Your task to perform on an android device: View the shopping cart on amazon. Search for razer thresher on amazon, select the first entry, add it to the cart, then select checkout. Image 0: 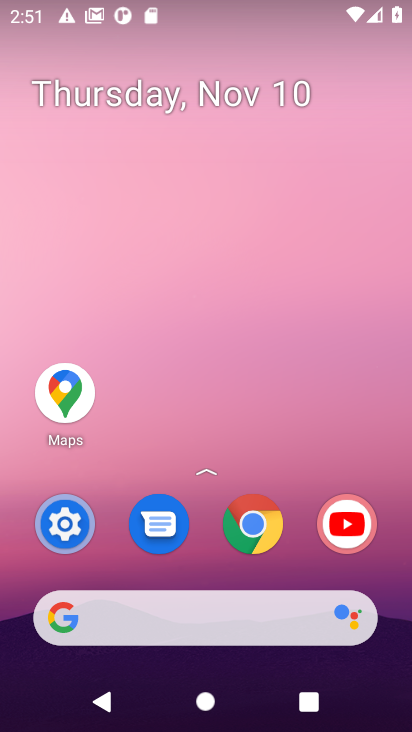
Step 0: click (250, 533)
Your task to perform on an android device: View the shopping cart on amazon. Search for razer thresher on amazon, select the first entry, add it to the cart, then select checkout. Image 1: 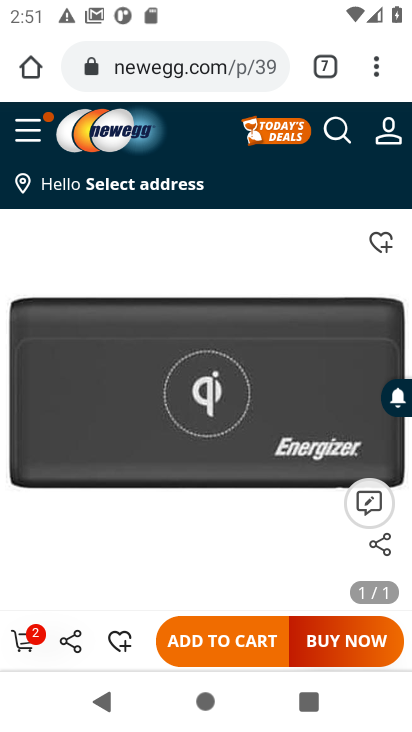
Step 1: click (329, 62)
Your task to perform on an android device: View the shopping cart on amazon. Search for razer thresher on amazon, select the first entry, add it to the cart, then select checkout. Image 2: 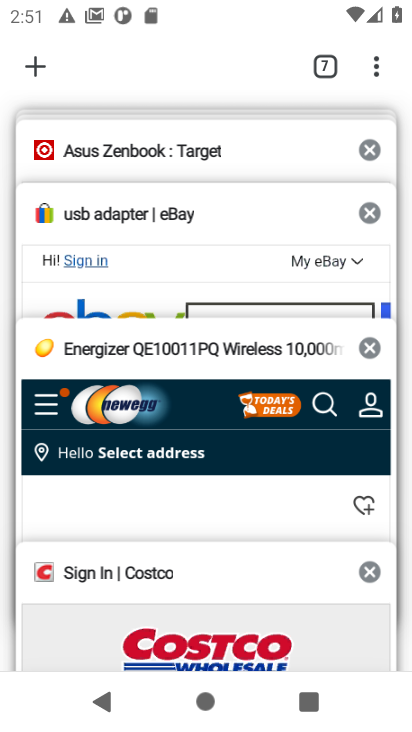
Step 2: drag from (241, 158) to (203, 379)
Your task to perform on an android device: View the shopping cart on amazon. Search for razer thresher on amazon, select the first entry, add it to the cart, then select checkout. Image 3: 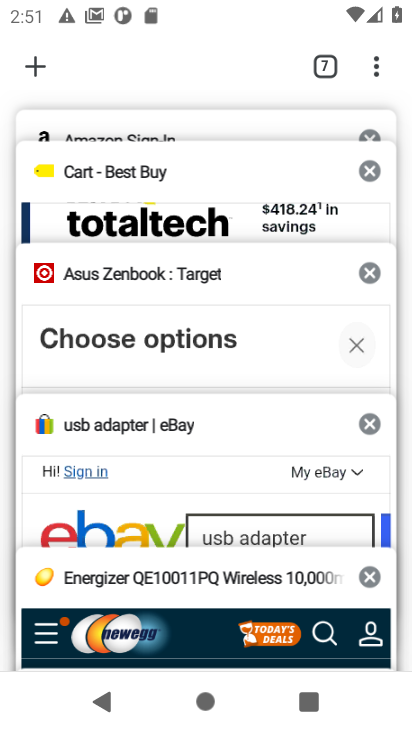
Step 3: click (268, 127)
Your task to perform on an android device: View the shopping cart on amazon. Search for razer thresher on amazon, select the first entry, add it to the cart, then select checkout. Image 4: 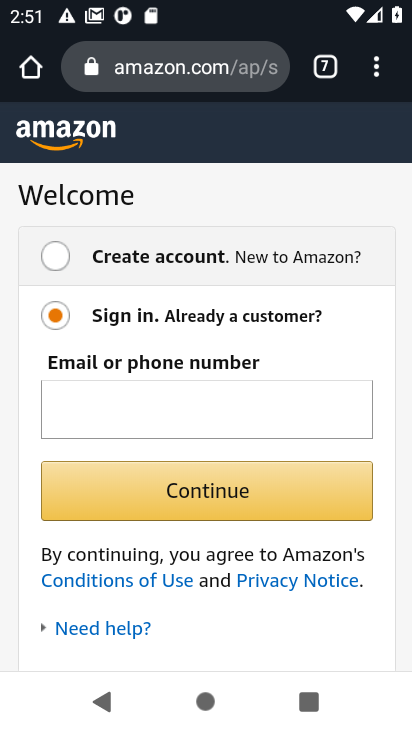
Step 4: press back button
Your task to perform on an android device: View the shopping cart on amazon. Search for razer thresher on amazon, select the first entry, add it to the cart, then select checkout. Image 5: 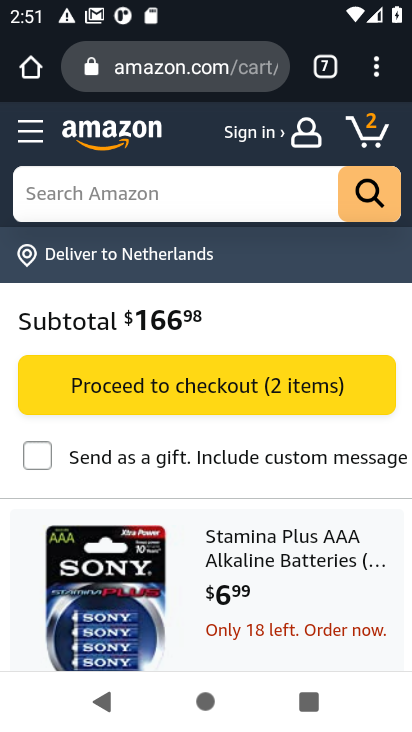
Step 5: click (153, 195)
Your task to perform on an android device: View the shopping cart on amazon. Search for razer thresher on amazon, select the first entry, add it to the cart, then select checkout. Image 6: 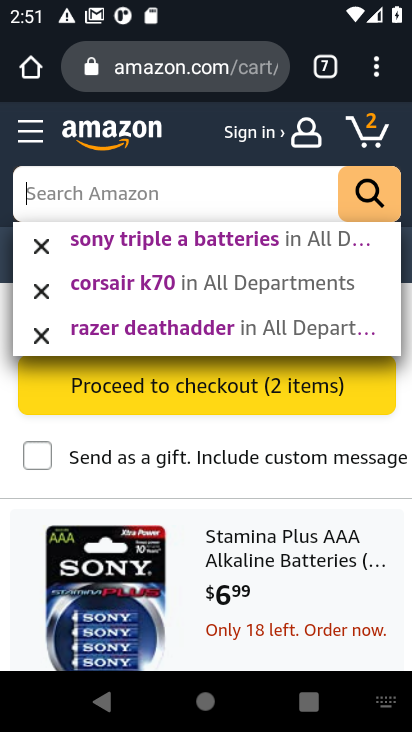
Step 6: type "razer thresher"
Your task to perform on an android device: View the shopping cart on amazon. Search for razer thresher on amazon, select the first entry, add it to the cart, then select checkout. Image 7: 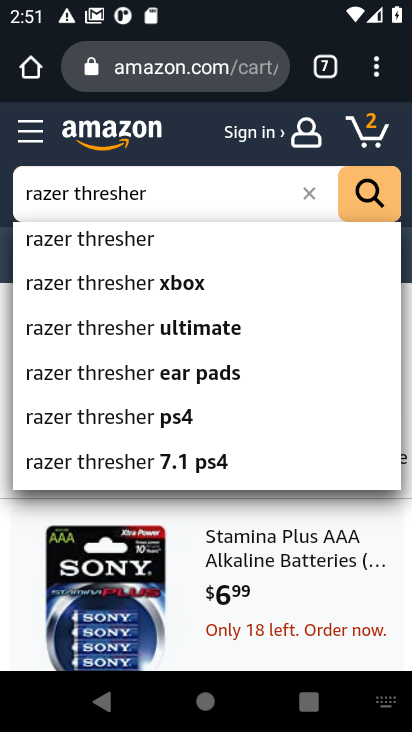
Step 7: click (121, 239)
Your task to perform on an android device: View the shopping cart on amazon. Search for razer thresher on amazon, select the first entry, add it to the cart, then select checkout. Image 8: 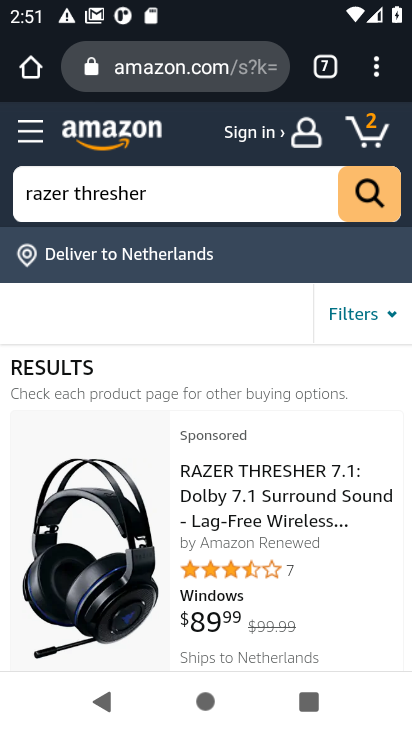
Step 8: click (304, 490)
Your task to perform on an android device: View the shopping cart on amazon. Search for razer thresher on amazon, select the first entry, add it to the cart, then select checkout. Image 9: 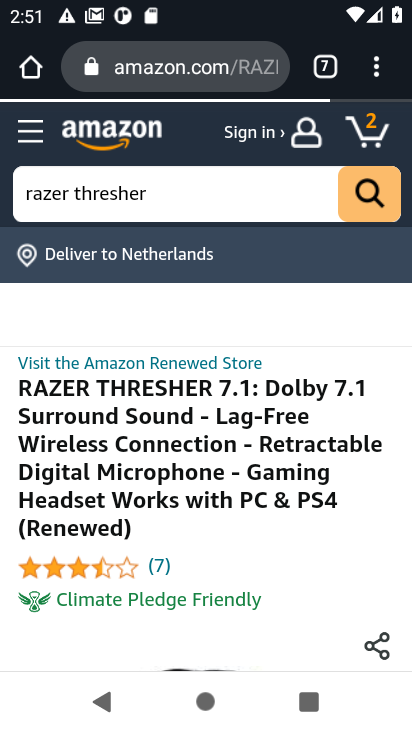
Step 9: drag from (297, 559) to (343, 148)
Your task to perform on an android device: View the shopping cart on amazon. Search for razer thresher on amazon, select the first entry, add it to the cart, then select checkout. Image 10: 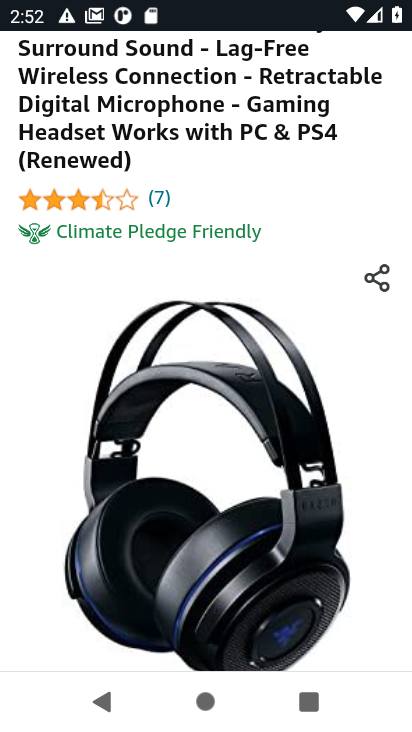
Step 10: drag from (330, 645) to (335, 183)
Your task to perform on an android device: View the shopping cart on amazon. Search for razer thresher on amazon, select the first entry, add it to the cart, then select checkout. Image 11: 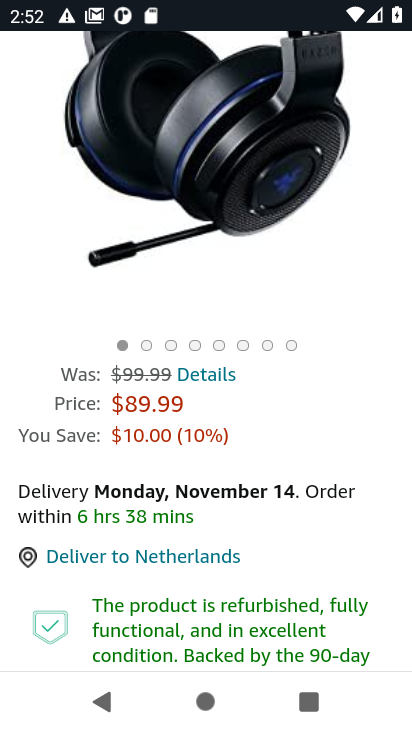
Step 11: drag from (297, 555) to (296, 89)
Your task to perform on an android device: View the shopping cart on amazon. Search for razer thresher on amazon, select the first entry, add it to the cart, then select checkout. Image 12: 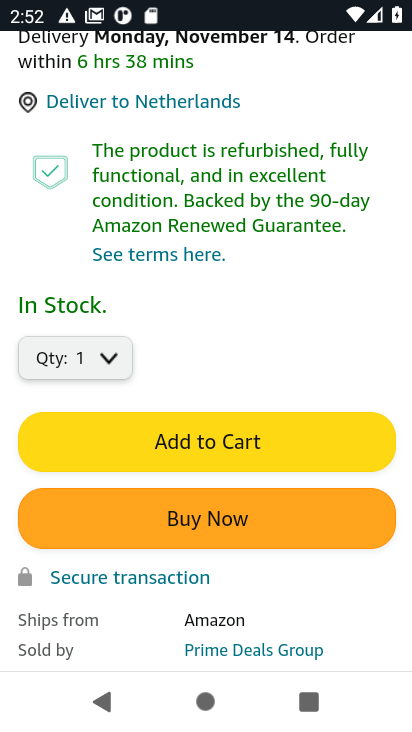
Step 12: click (239, 445)
Your task to perform on an android device: View the shopping cart on amazon. Search for razer thresher on amazon, select the first entry, add it to the cart, then select checkout. Image 13: 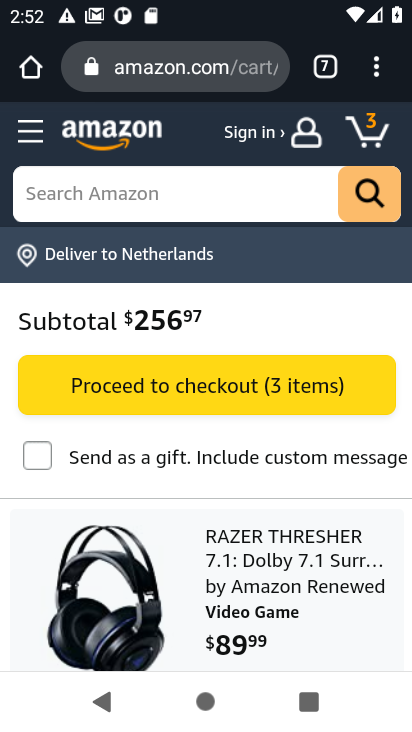
Step 13: task complete